Your task to perform on an android device: Open Google Maps and go to "Timeline" Image 0: 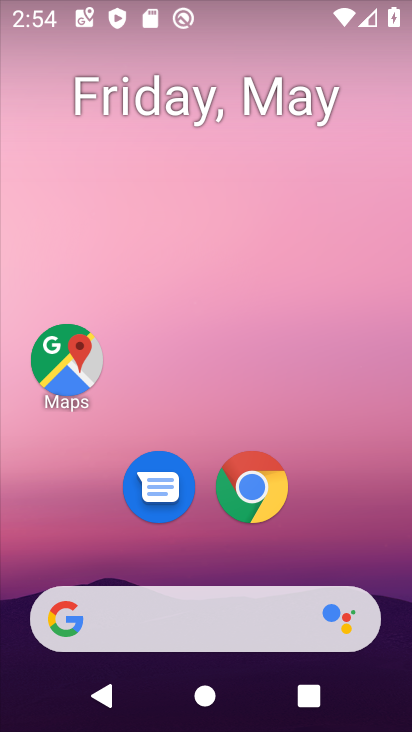
Step 0: click (58, 365)
Your task to perform on an android device: Open Google Maps and go to "Timeline" Image 1: 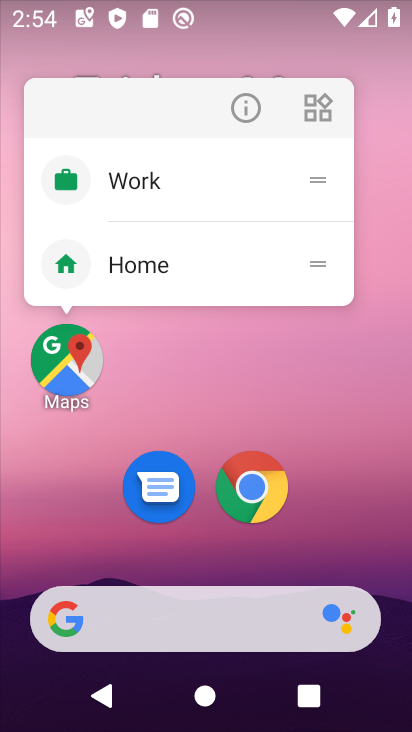
Step 1: click (94, 396)
Your task to perform on an android device: Open Google Maps and go to "Timeline" Image 2: 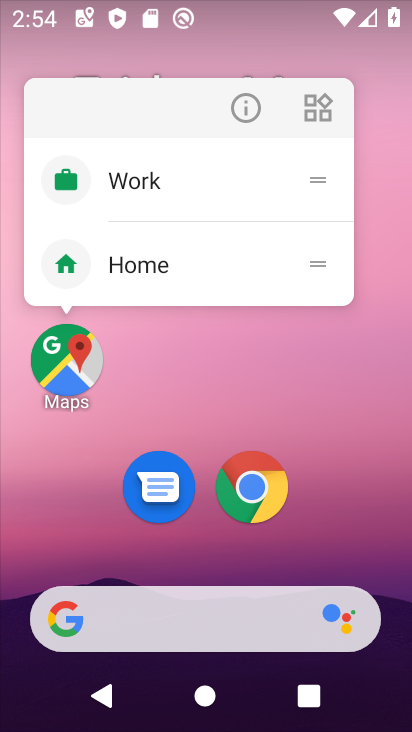
Step 2: click (67, 386)
Your task to perform on an android device: Open Google Maps and go to "Timeline" Image 3: 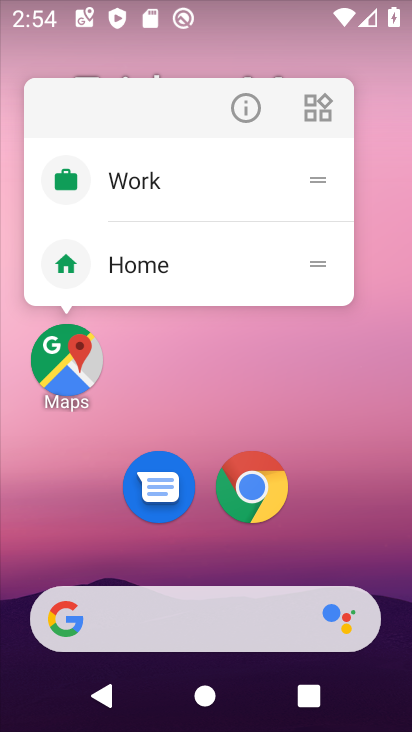
Step 3: click (80, 379)
Your task to perform on an android device: Open Google Maps and go to "Timeline" Image 4: 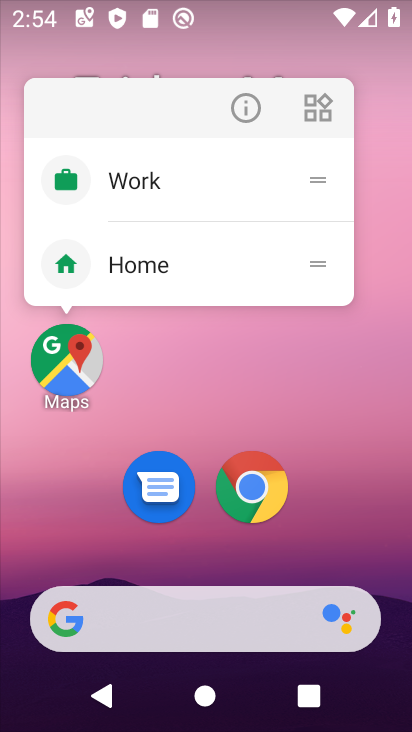
Step 4: click (76, 379)
Your task to perform on an android device: Open Google Maps and go to "Timeline" Image 5: 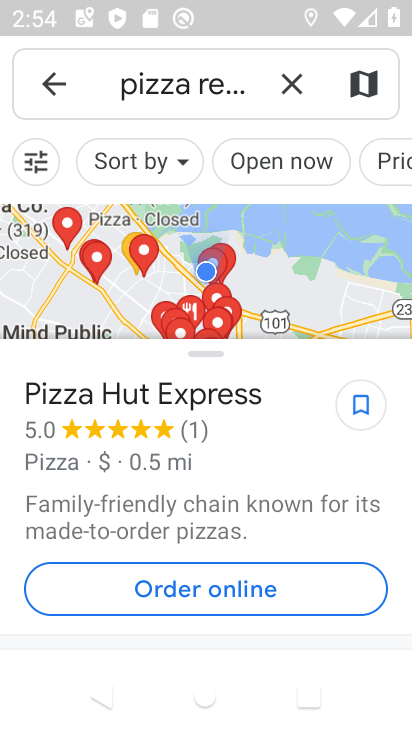
Step 5: click (66, 85)
Your task to perform on an android device: Open Google Maps and go to "Timeline" Image 6: 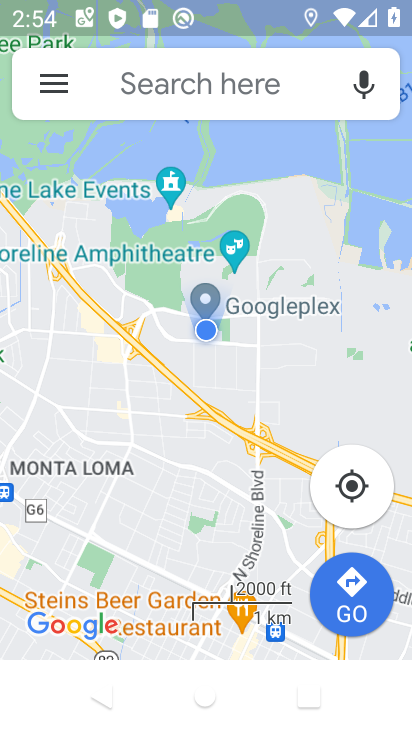
Step 6: click (66, 85)
Your task to perform on an android device: Open Google Maps and go to "Timeline" Image 7: 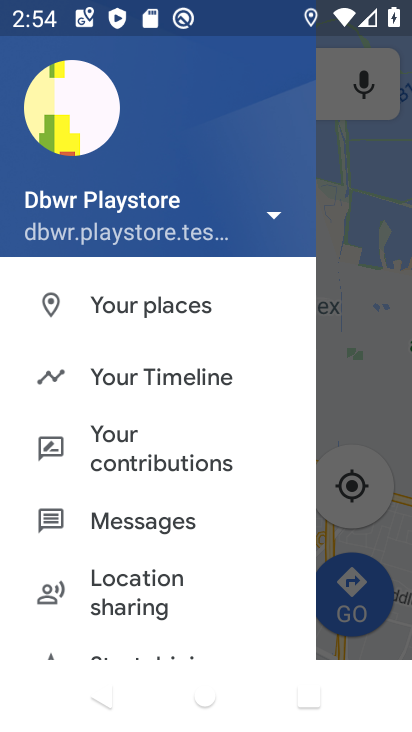
Step 7: click (198, 386)
Your task to perform on an android device: Open Google Maps and go to "Timeline" Image 8: 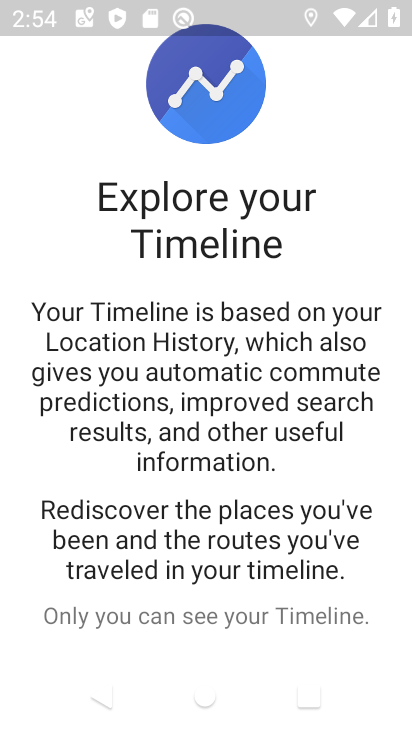
Step 8: drag from (171, 539) to (280, 243)
Your task to perform on an android device: Open Google Maps and go to "Timeline" Image 9: 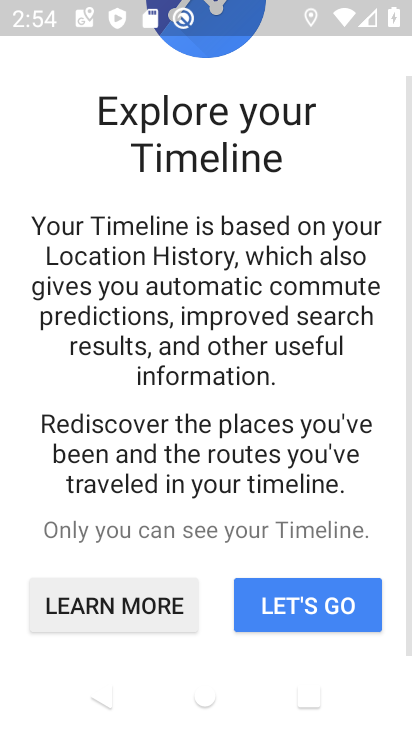
Step 9: click (314, 584)
Your task to perform on an android device: Open Google Maps and go to "Timeline" Image 10: 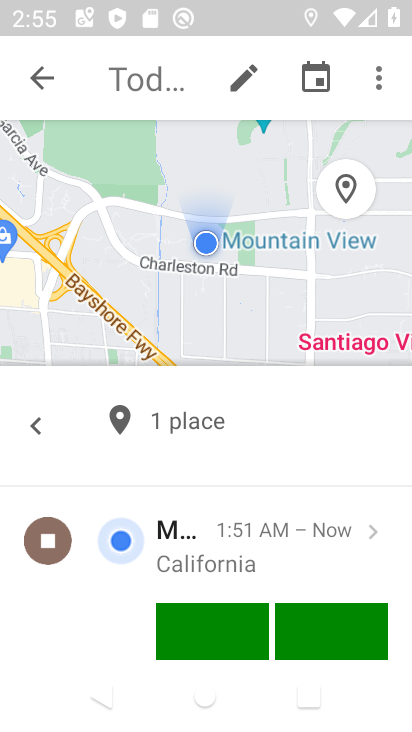
Step 10: task complete